Your task to perform on an android device: star an email in the gmail app Image 0: 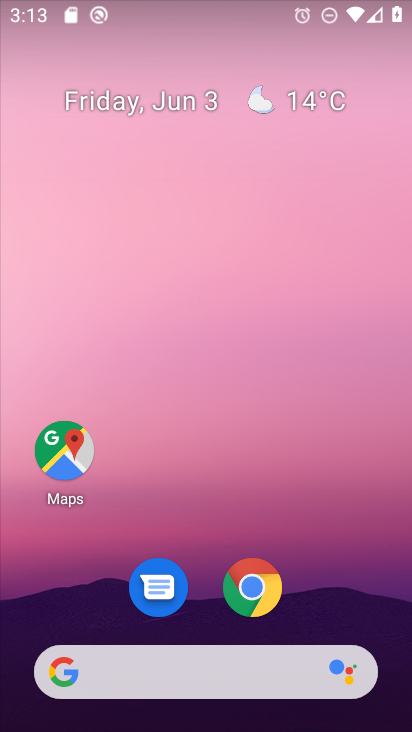
Step 0: drag from (226, 728) to (212, 76)
Your task to perform on an android device: star an email in the gmail app Image 1: 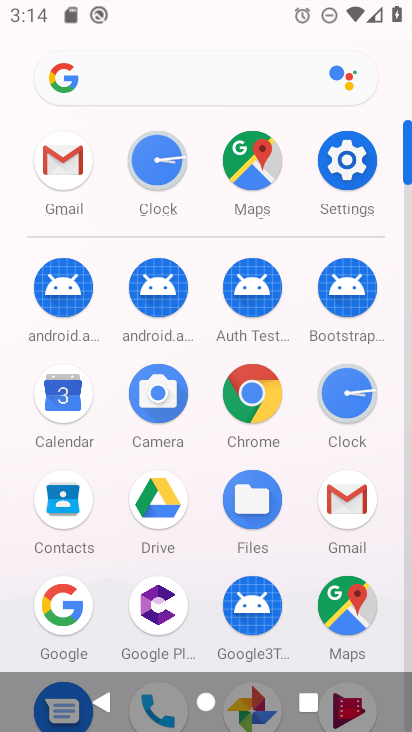
Step 1: click (346, 513)
Your task to perform on an android device: star an email in the gmail app Image 2: 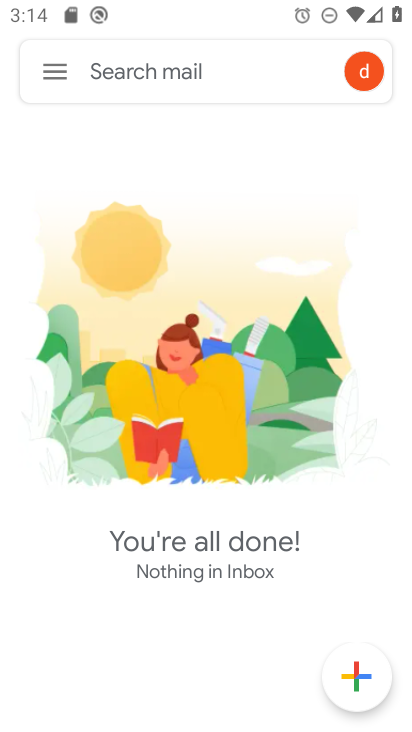
Step 2: click (326, 616)
Your task to perform on an android device: star an email in the gmail app Image 3: 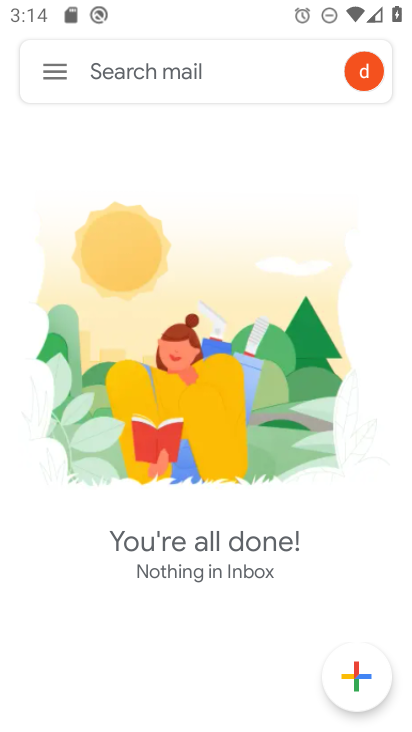
Step 3: task complete